Your task to perform on an android device: change timer sound Image 0: 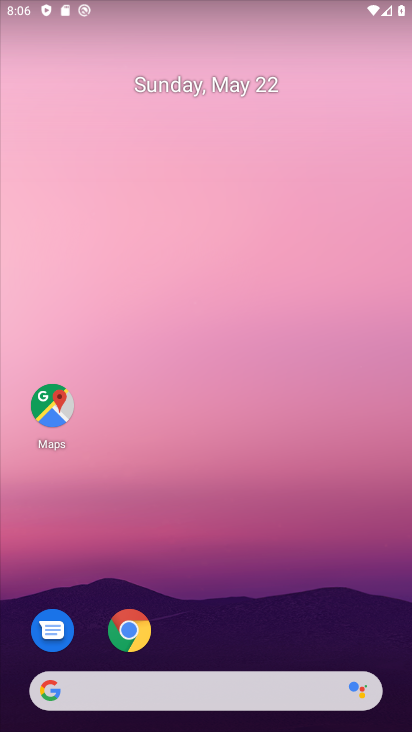
Step 0: drag from (295, 607) to (212, 147)
Your task to perform on an android device: change timer sound Image 1: 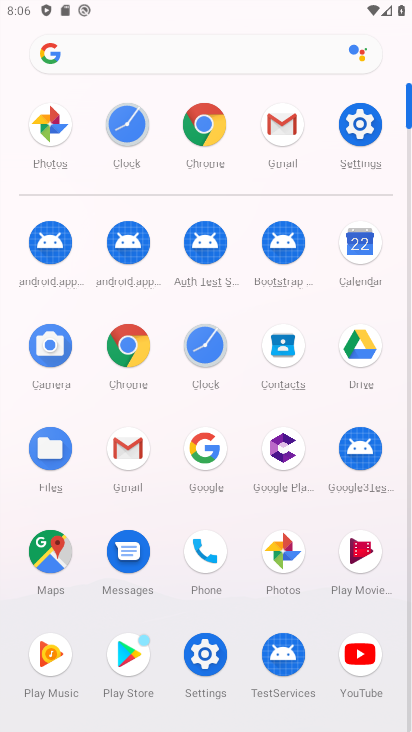
Step 1: click (349, 114)
Your task to perform on an android device: change timer sound Image 2: 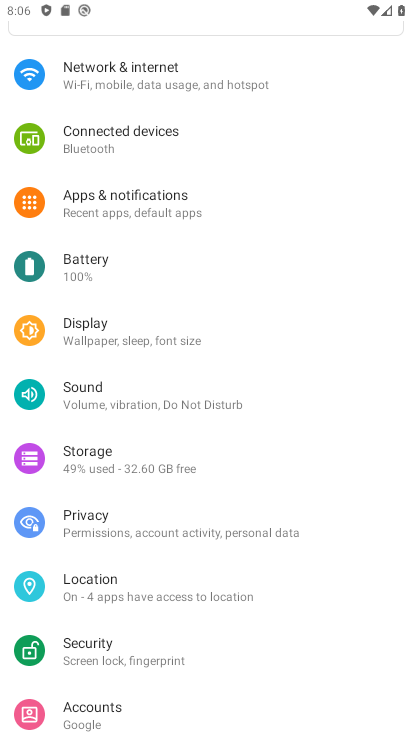
Step 2: press home button
Your task to perform on an android device: change timer sound Image 3: 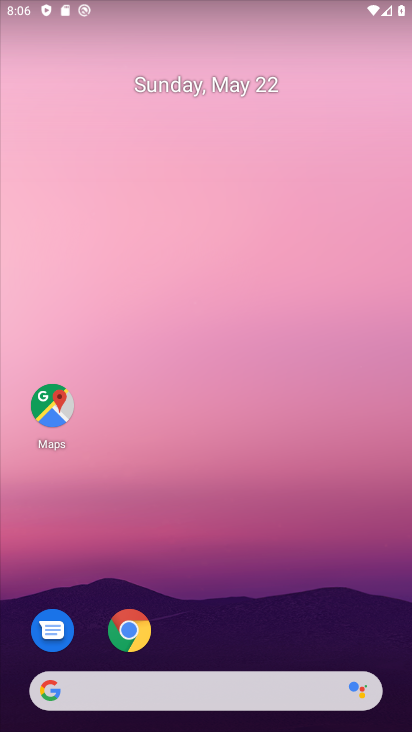
Step 3: drag from (270, 595) to (248, 0)
Your task to perform on an android device: change timer sound Image 4: 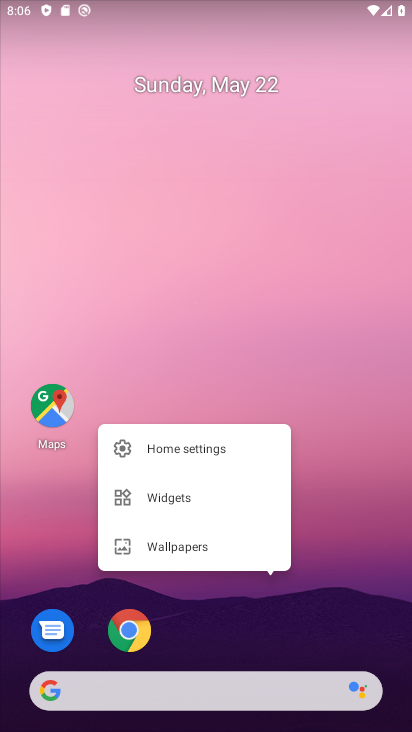
Step 4: click (314, 496)
Your task to perform on an android device: change timer sound Image 5: 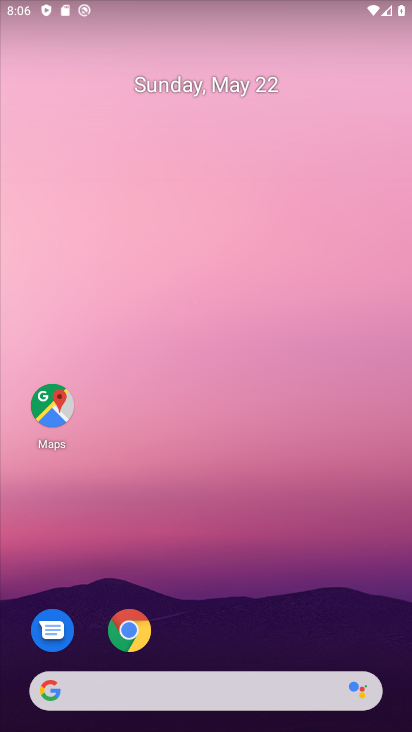
Step 5: drag from (275, 629) to (150, 71)
Your task to perform on an android device: change timer sound Image 6: 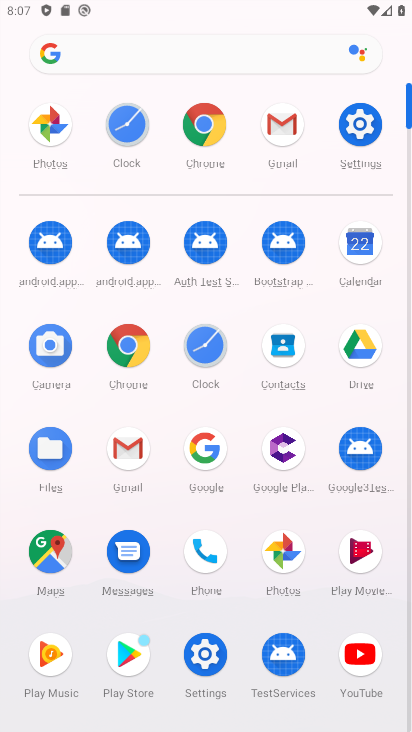
Step 6: click (217, 349)
Your task to perform on an android device: change timer sound Image 7: 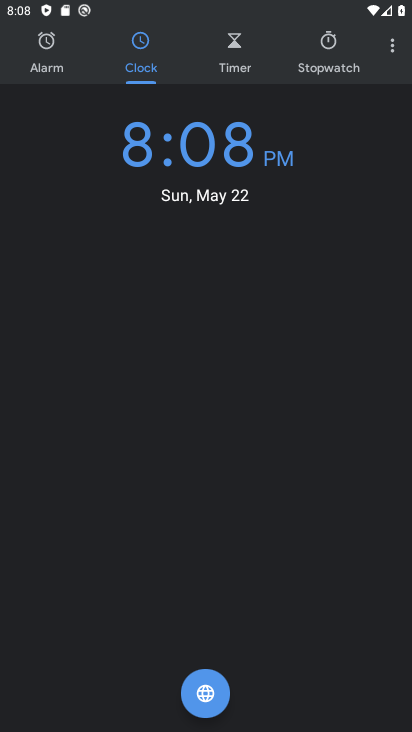
Step 7: click (406, 52)
Your task to perform on an android device: change timer sound Image 8: 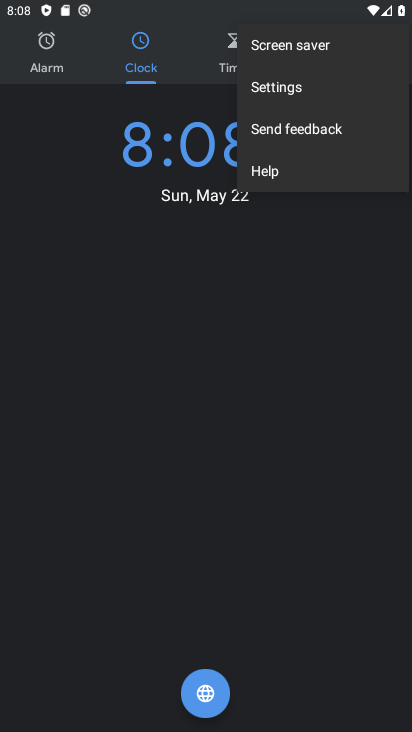
Step 8: click (307, 77)
Your task to perform on an android device: change timer sound Image 9: 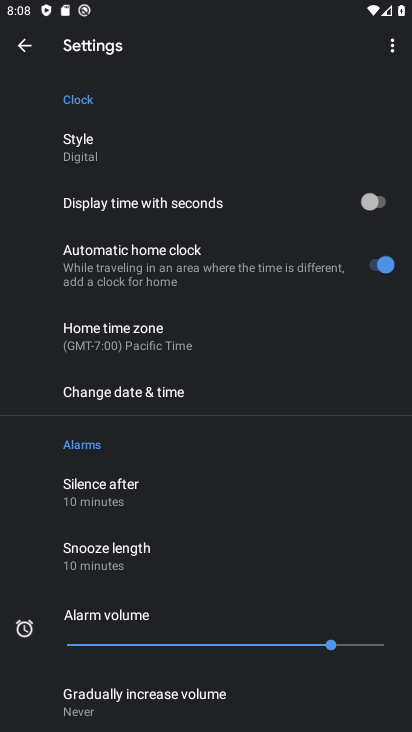
Step 9: click (141, 543)
Your task to perform on an android device: change timer sound Image 10: 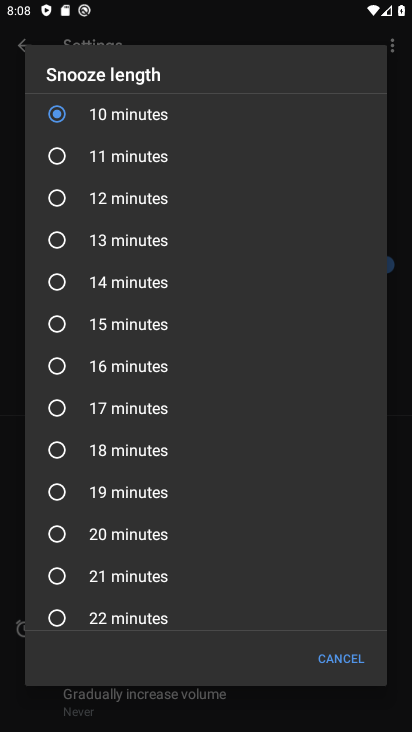
Step 10: click (344, 667)
Your task to perform on an android device: change timer sound Image 11: 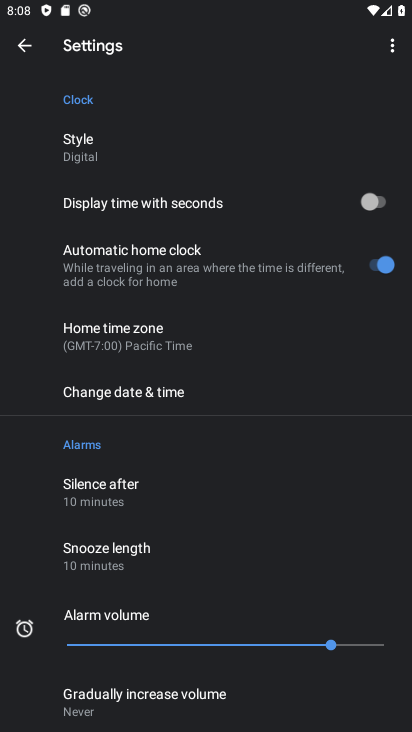
Step 11: drag from (303, 659) to (325, 93)
Your task to perform on an android device: change timer sound Image 12: 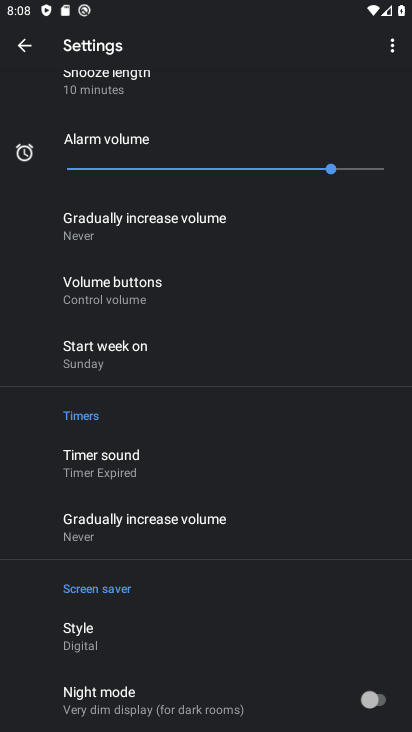
Step 12: click (169, 457)
Your task to perform on an android device: change timer sound Image 13: 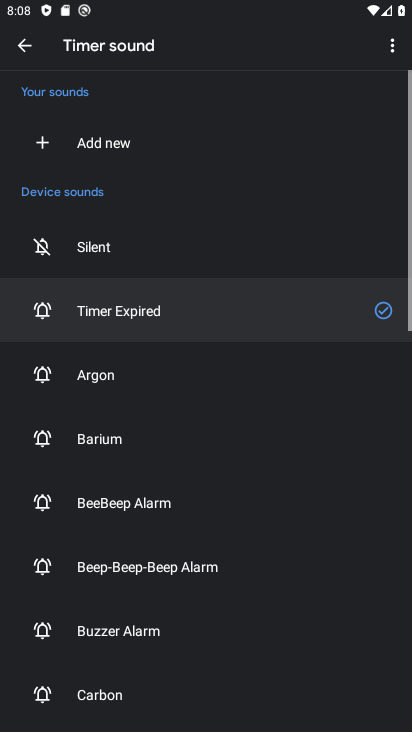
Step 13: click (133, 595)
Your task to perform on an android device: change timer sound Image 14: 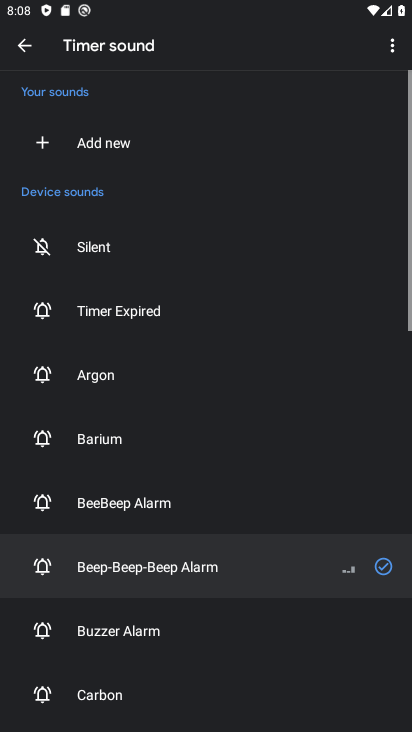
Step 14: task complete